Your task to perform on an android device: Turn on the flashlight Image 0: 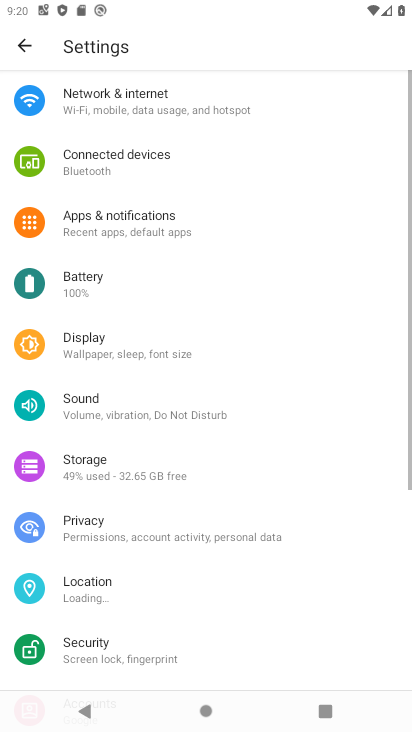
Step 0: drag from (240, 505) to (180, 76)
Your task to perform on an android device: Turn on the flashlight Image 1: 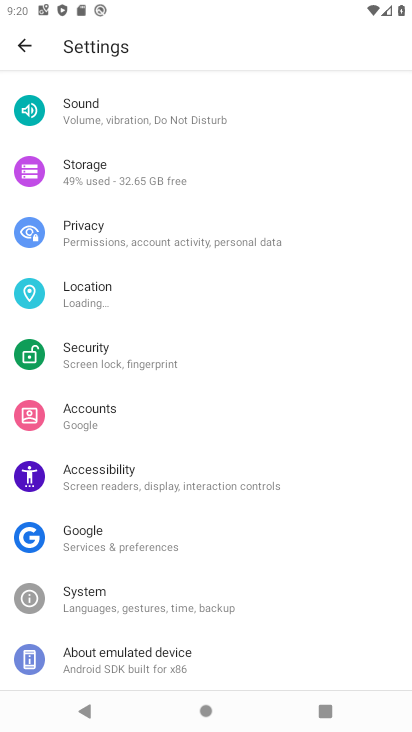
Step 1: task complete